Your task to perform on an android device: set an alarm Image 0: 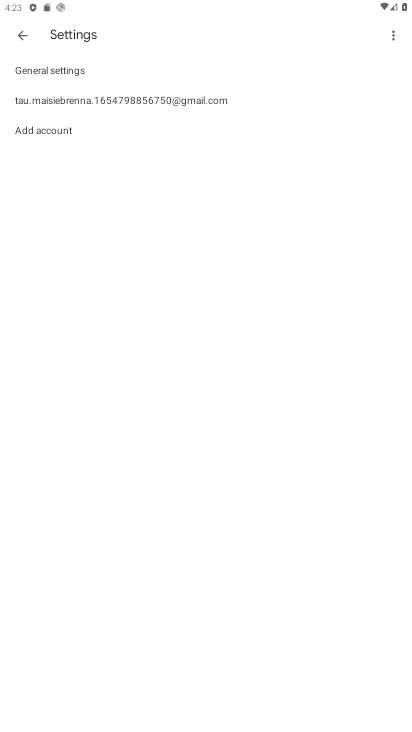
Step 0: press home button
Your task to perform on an android device: set an alarm Image 1: 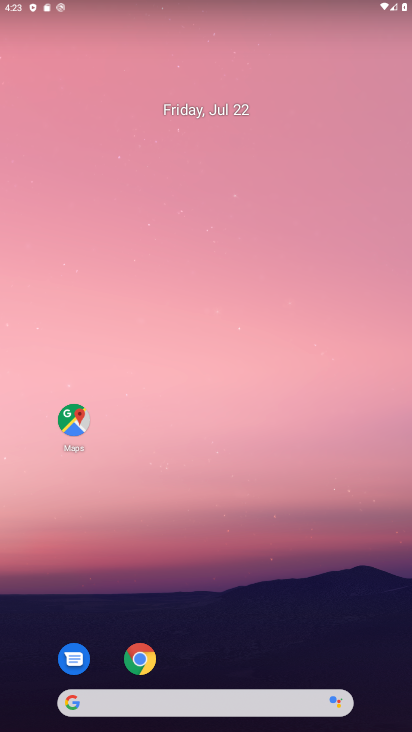
Step 1: drag from (204, 657) to (198, 54)
Your task to perform on an android device: set an alarm Image 2: 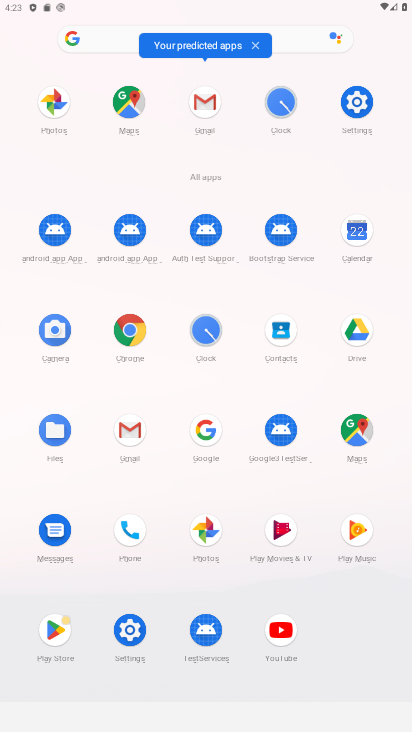
Step 2: click (279, 98)
Your task to perform on an android device: set an alarm Image 3: 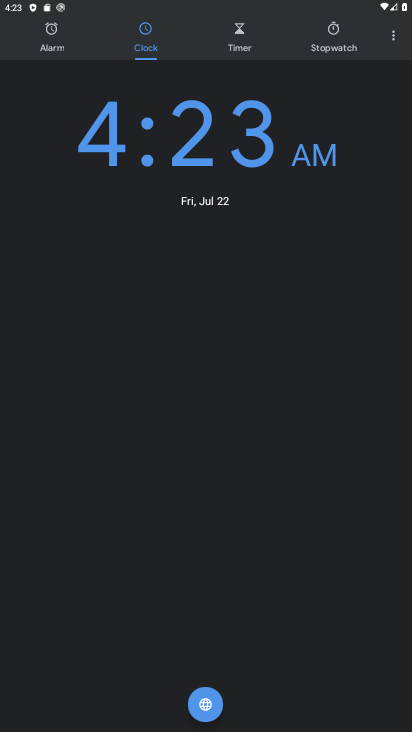
Step 3: click (52, 32)
Your task to perform on an android device: set an alarm Image 4: 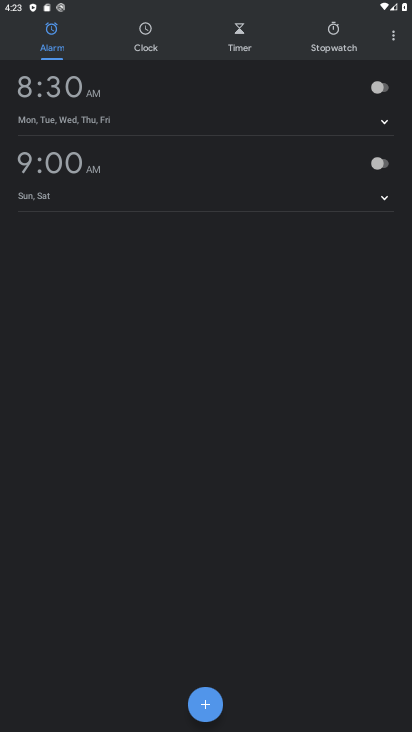
Step 4: click (384, 88)
Your task to perform on an android device: set an alarm Image 5: 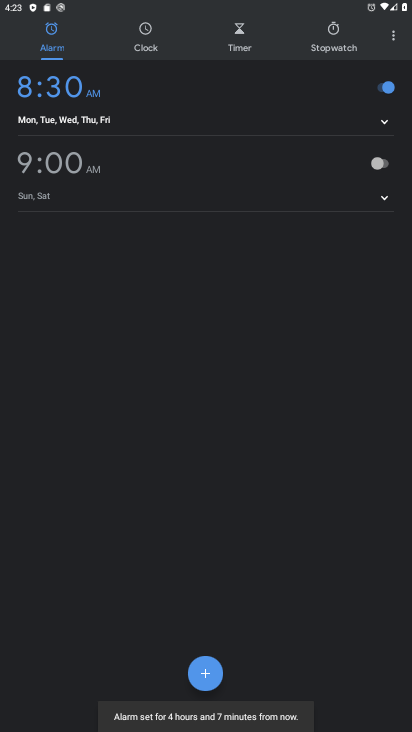
Step 5: click (382, 160)
Your task to perform on an android device: set an alarm Image 6: 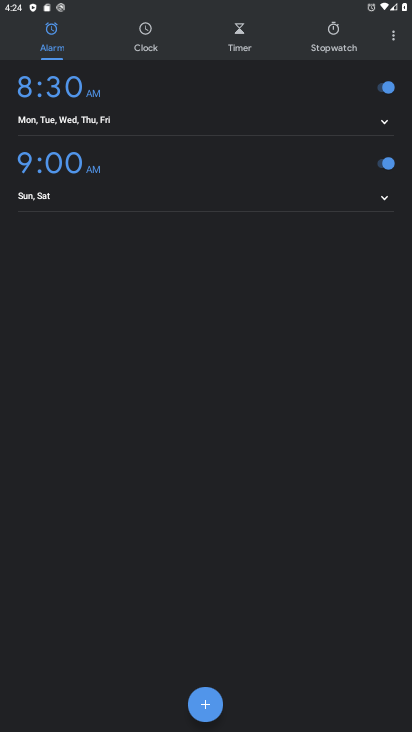
Step 6: task complete